Your task to perform on an android device: change text size in settings app Image 0: 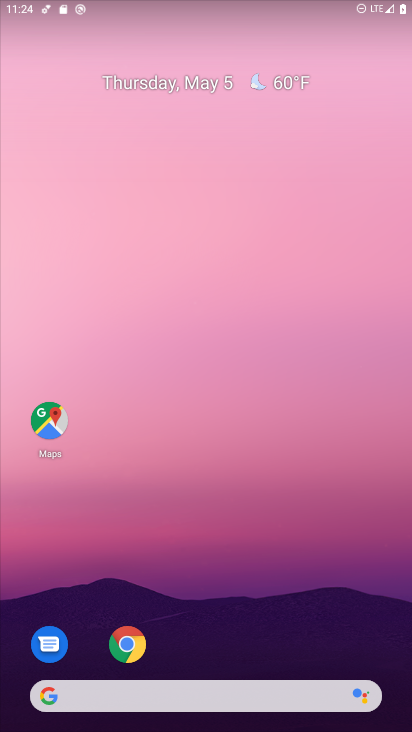
Step 0: drag from (377, 628) to (348, 209)
Your task to perform on an android device: change text size in settings app Image 1: 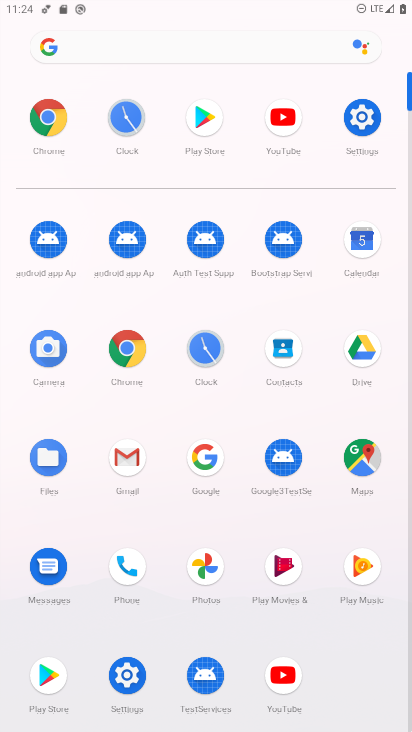
Step 1: click (131, 698)
Your task to perform on an android device: change text size in settings app Image 2: 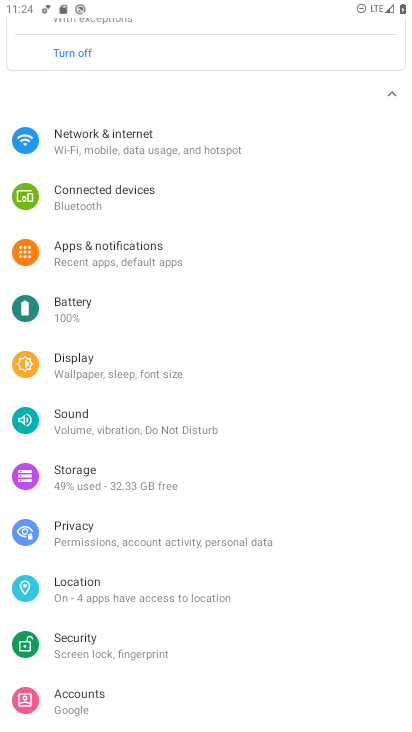
Step 2: click (67, 371)
Your task to perform on an android device: change text size in settings app Image 3: 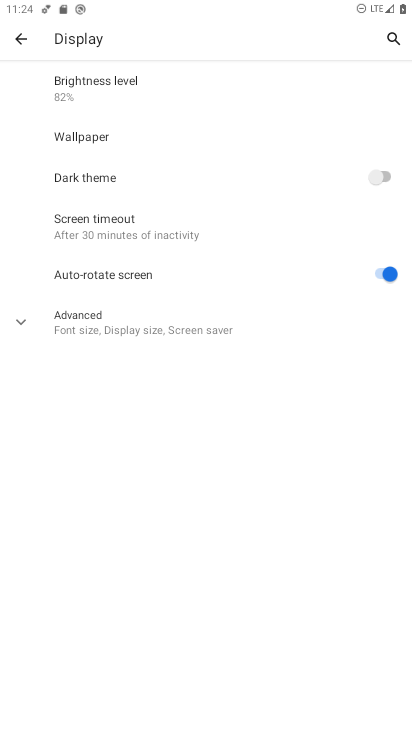
Step 3: click (109, 325)
Your task to perform on an android device: change text size in settings app Image 4: 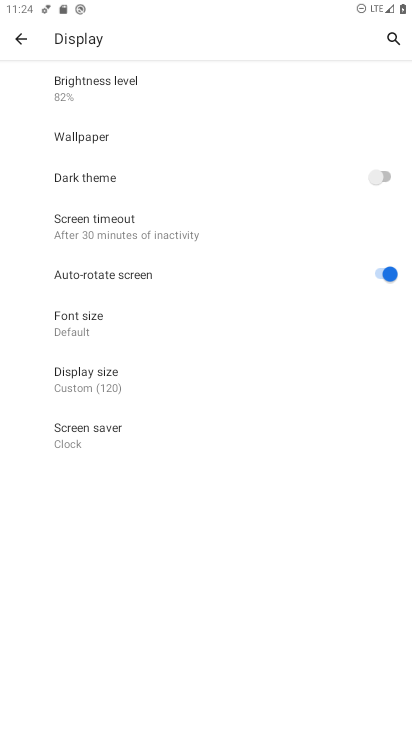
Step 4: click (90, 336)
Your task to perform on an android device: change text size in settings app Image 5: 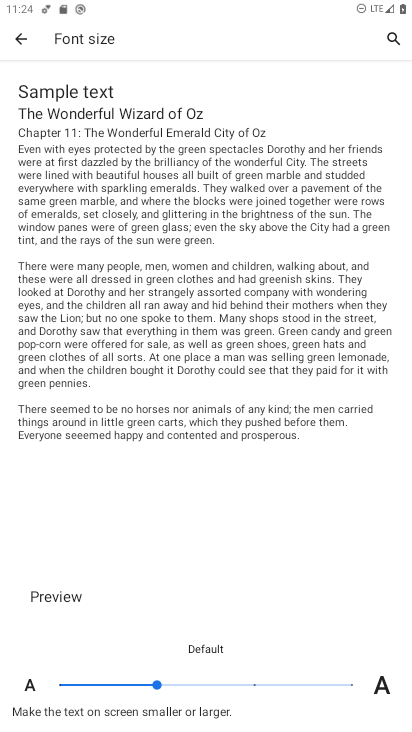
Step 5: click (60, 682)
Your task to perform on an android device: change text size in settings app Image 6: 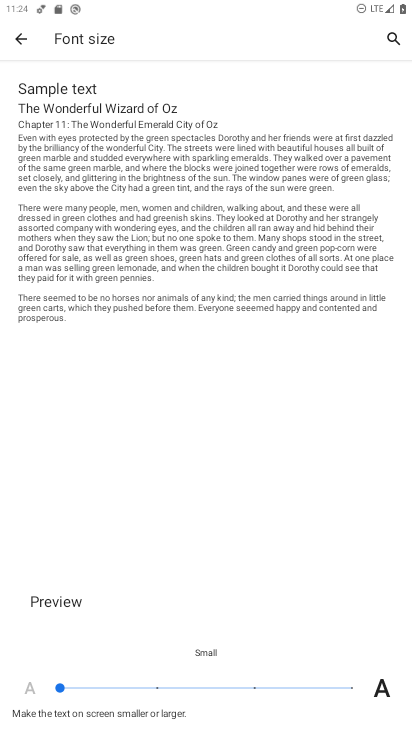
Step 6: task complete